Your task to perform on an android device: Open the calendar app, open the side menu, and click the "Day" option Image 0: 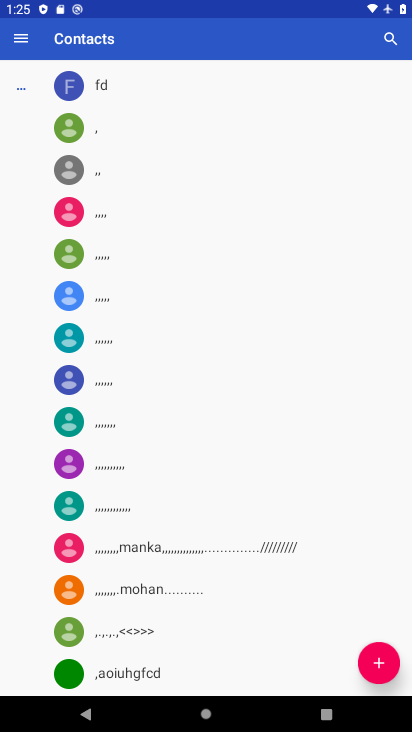
Step 0: press home button
Your task to perform on an android device: Open the calendar app, open the side menu, and click the "Day" option Image 1: 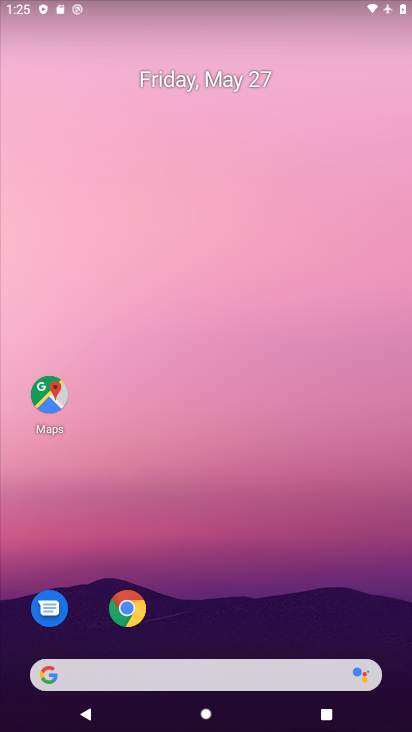
Step 1: drag from (149, 673) to (288, 214)
Your task to perform on an android device: Open the calendar app, open the side menu, and click the "Day" option Image 2: 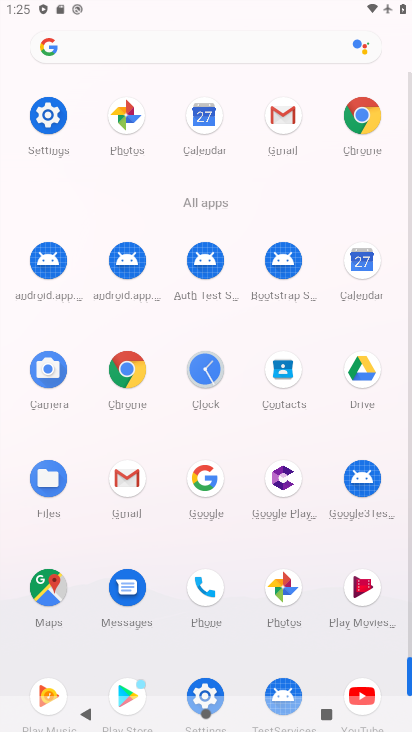
Step 2: click (208, 119)
Your task to perform on an android device: Open the calendar app, open the side menu, and click the "Day" option Image 3: 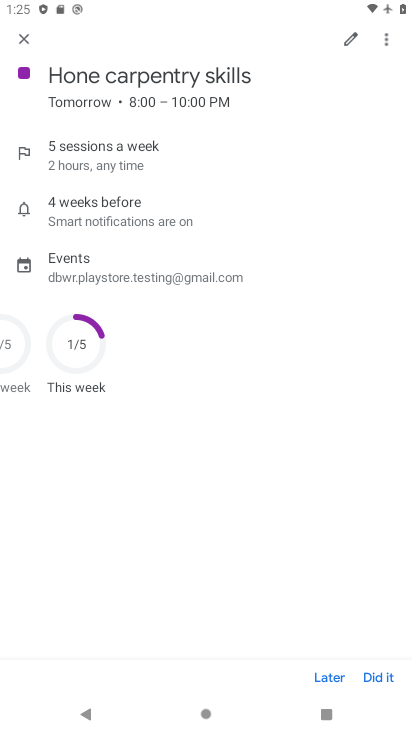
Step 3: click (24, 40)
Your task to perform on an android device: Open the calendar app, open the side menu, and click the "Day" option Image 4: 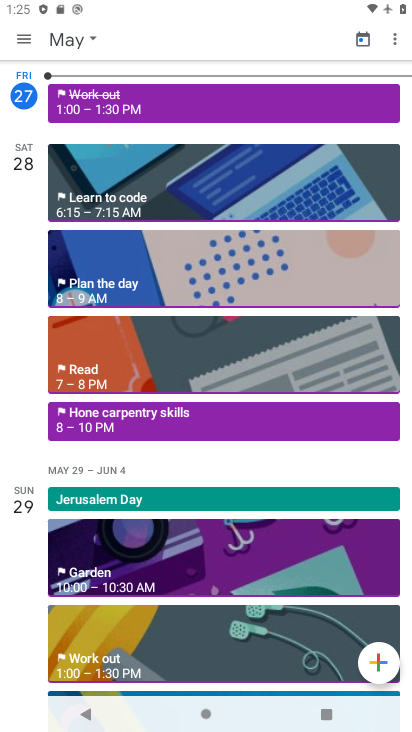
Step 4: click (26, 40)
Your task to perform on an android device: Open the calendar app, open the side menu, and click the "Day" option Image 5: 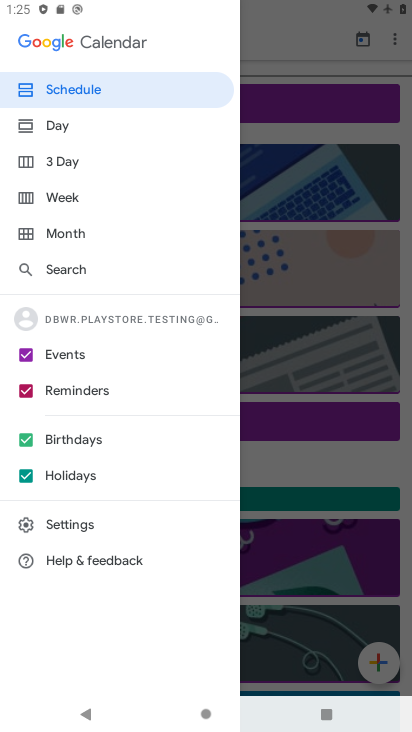
Step 5: click (57, 121)
Your task to perform on an android device: Open the calendar app, open the side menu, and click the "Day" option Image 6: 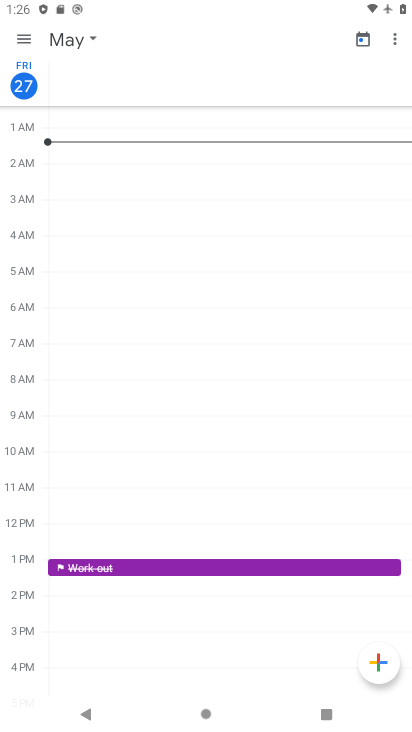
Step 6: task complete